Your task to perform on an android device: set an alarm Image 0: 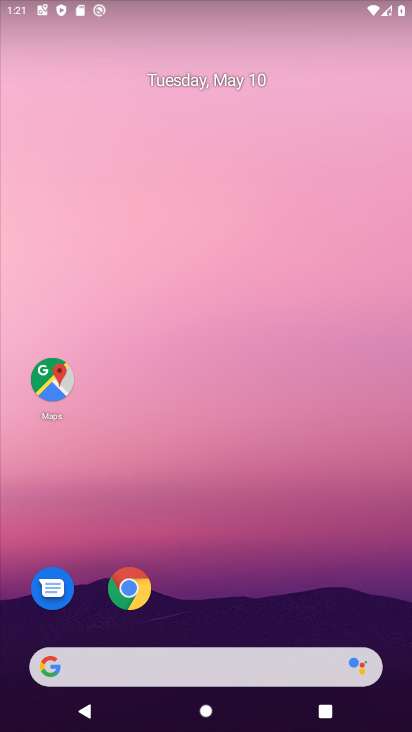
Step 0: drag from (188, 649) to (335, 38)
Your task to perform on an android device: set an alarm Image 1: 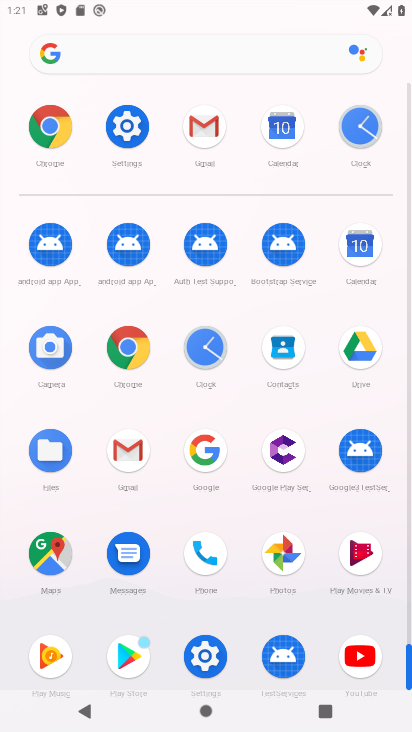
Step 1: click (356, 114)
Your task to perform on an android device: set an alarm Image 2: 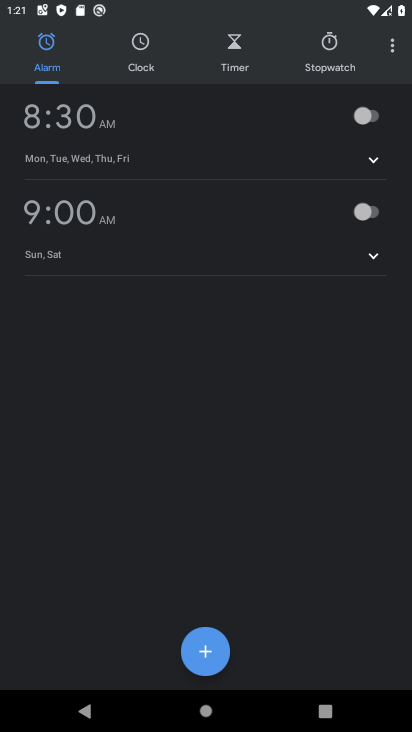
Step 2: click (375, 120)
Your task to perform on an android device: set an alarm Image 3: 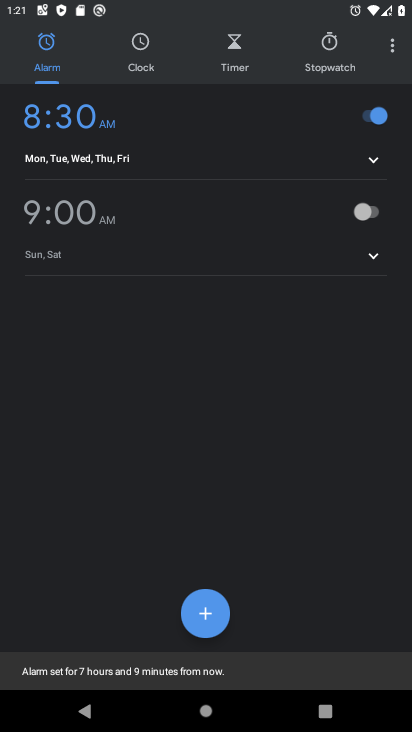
Step 3: click (370, 165)
Your task to perform on an android device: set an alarm Image 4: 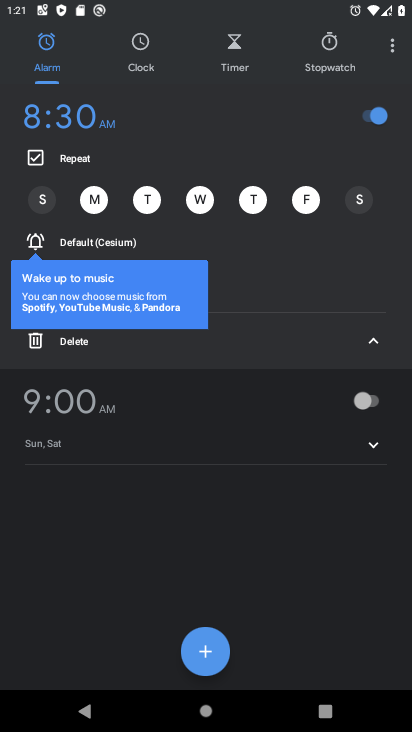
Step 4: click (52, 196)
Your task to perform on an android device: set an alarm Image 5: 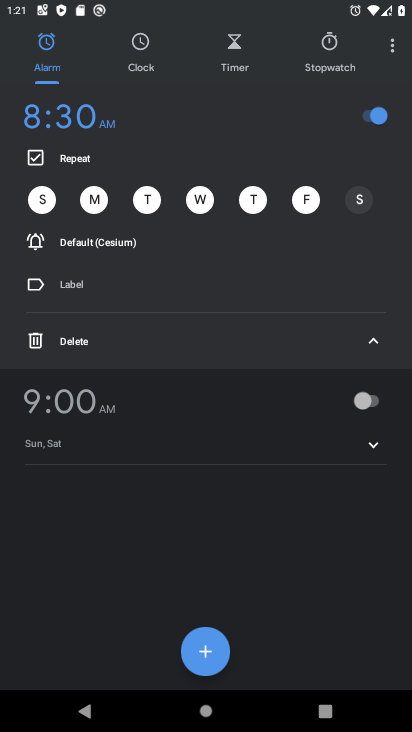
Step 5: click (369, 199)
Your task to perform on an android device: set an alarm Image 6: 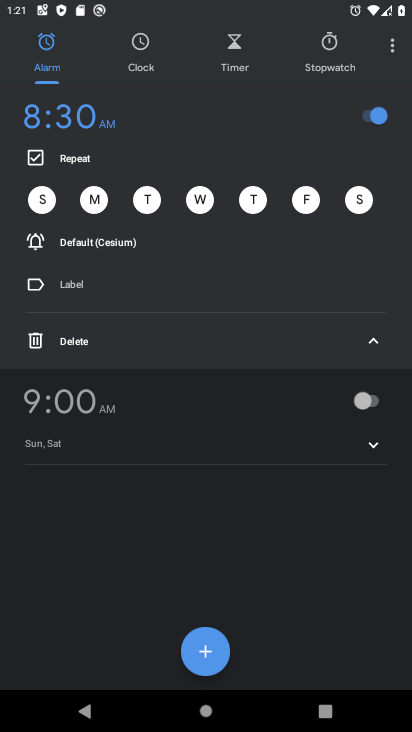
Step 6: task complete